Your task to perform on an android device: open wifi settings Image 0: 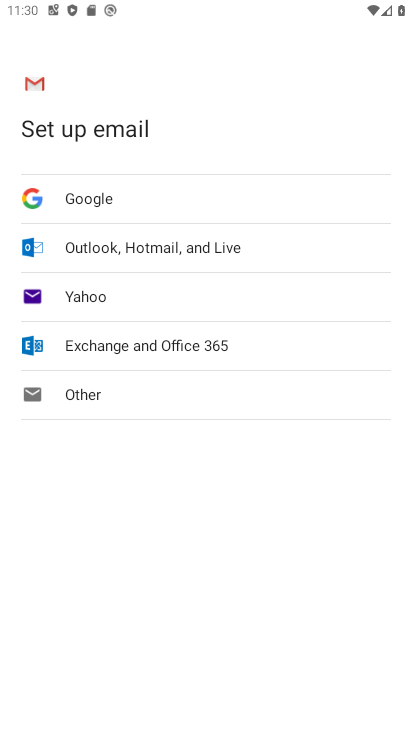
Step 0: press home button
Your task to perform on an android device: open wifi settings Image 1: 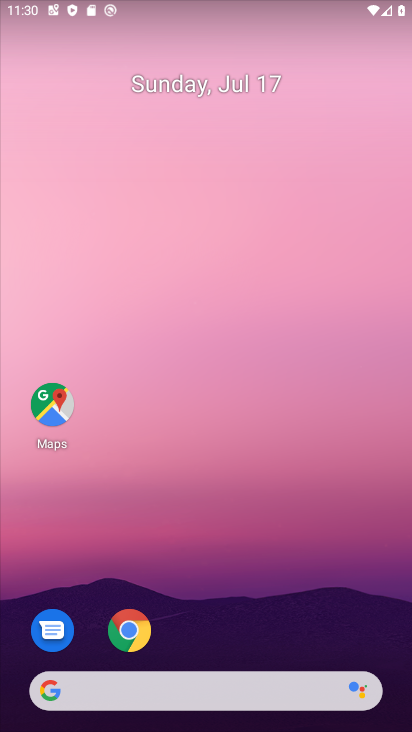
Step 1: click (256, 110)
Your task to perform on an android device: open wifi settings Image 2: 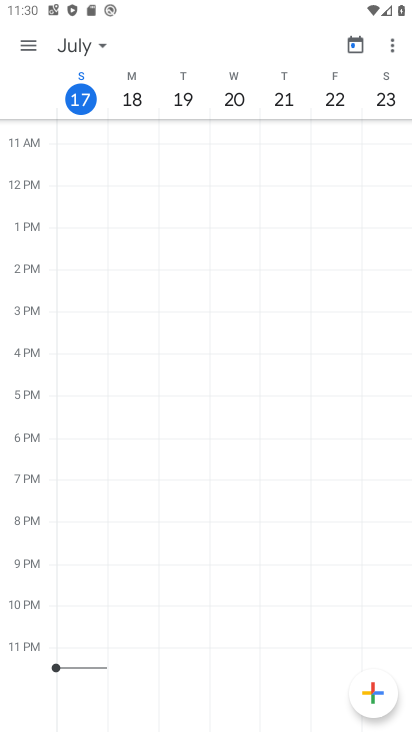
Step 2: press home button
Your task to perform on an android device: open wifi settings Image 3: 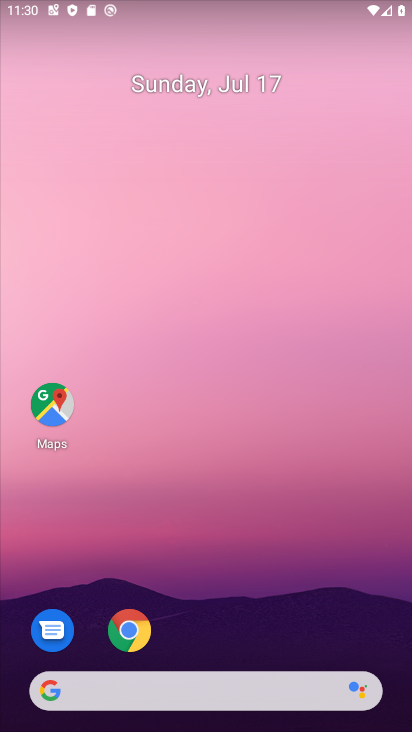
Step 3: drag from (193, 624) to (316, 6)
Your task to perform on an android device: open wifi settings Image 4: 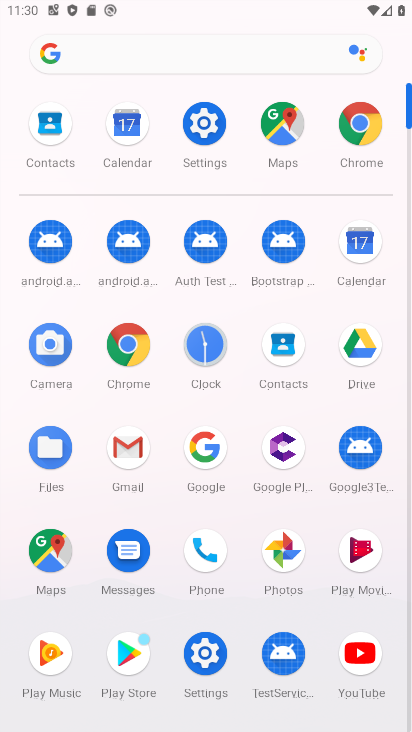
Step 4: click (202, 670)
Your task to perform on an android device: open wifi settings Image 5: 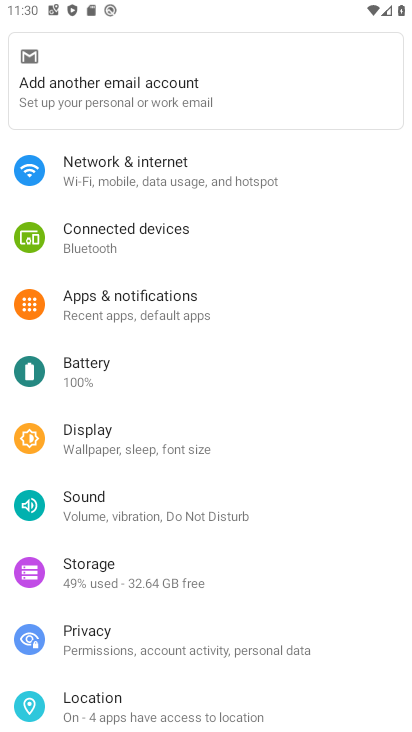
Step 5: click (158, 173)
Your task to perform on an android device: open wifi settings Image 6: 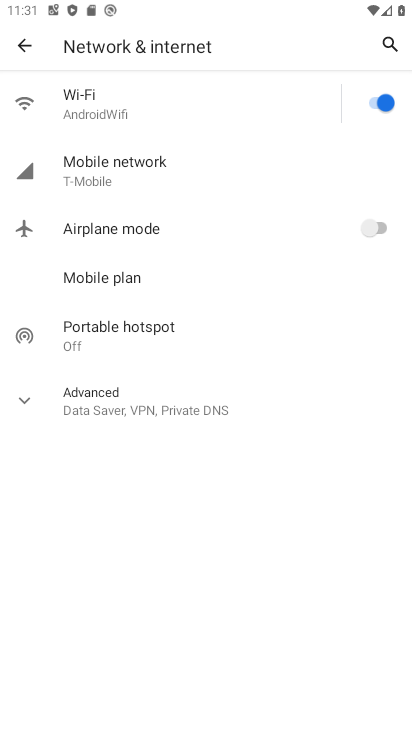
Step 6: click (96, 121)
Your task to perform on an android device: open wifi settings Image 7: 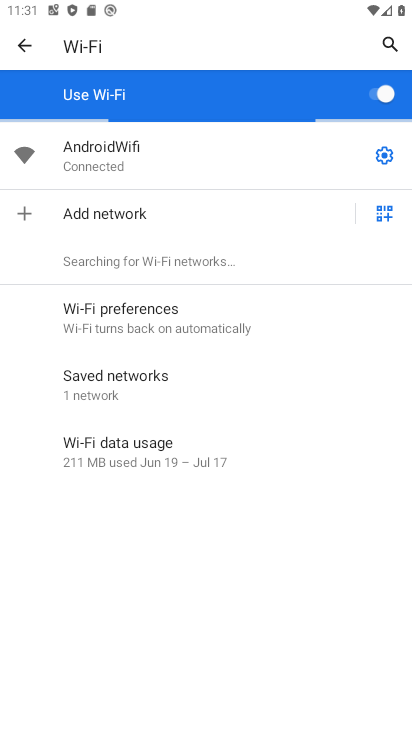
Step 7: task complete